Your task to perform on an android device: Open internet settings Image 0: 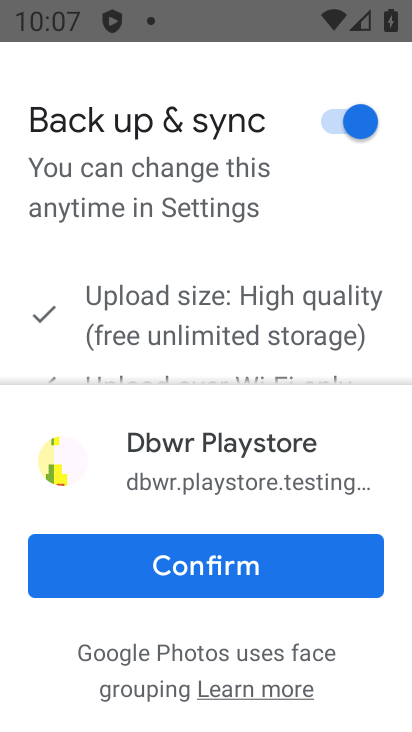
Step 0: press home button
Your task to perform on an android device: Open internet settings Image 1: 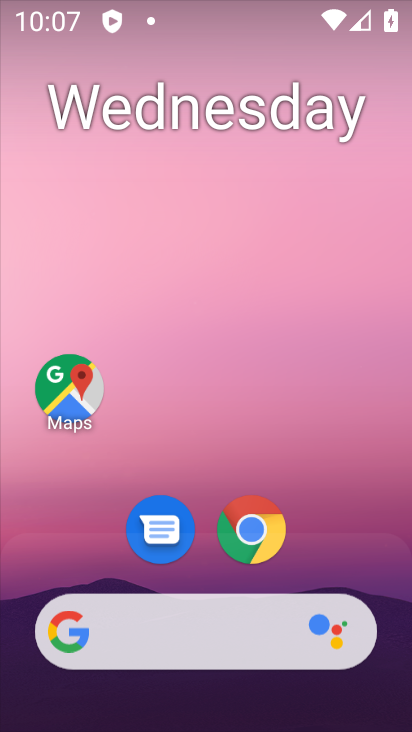
Step 1: drag from (390, 607) to (315, 80)
Your task to perform on an android device: Open internet settings Image 2: 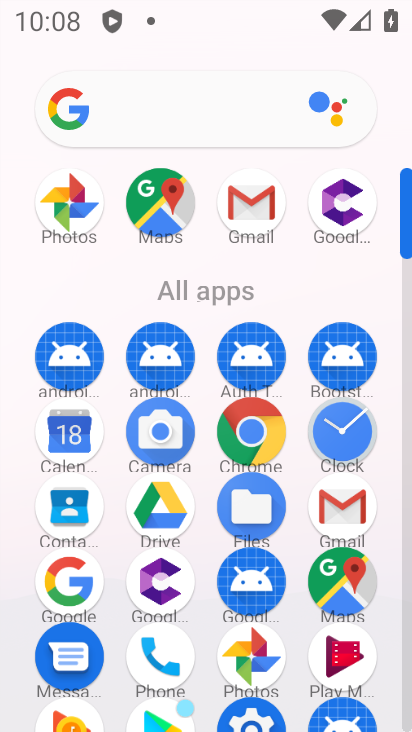
Step 2: click (406, 700)
Your task to perform on an android device: Open internet settings Image 3: 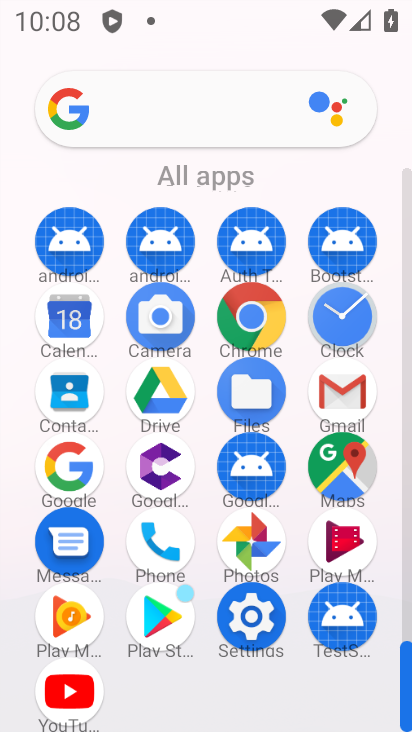
Step 3: click (253, 619)
Your task to perform on an android device: Open internet settings Image 4: 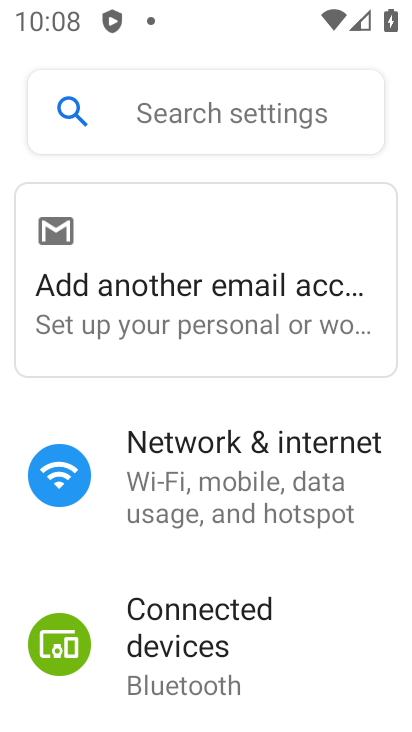
Step 4: drag from (281, 658) to (292, 318)
Your task to perform on an android device: Open internet settings Image 5: 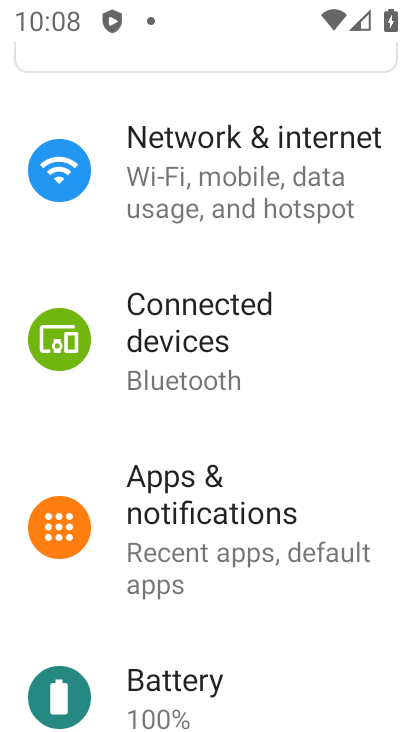
Step 5: click (193, 184)
Your task to perform on an android device: Open internet settings Image 6: 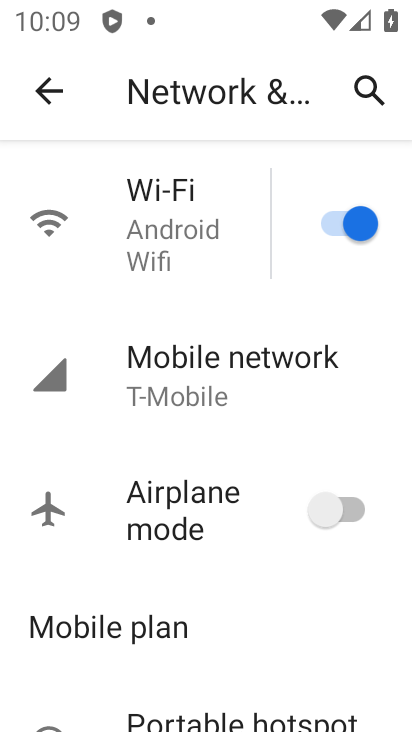
Step 6: task complete